Your task to perform on an android device: open sync settings in chrome Image 0: 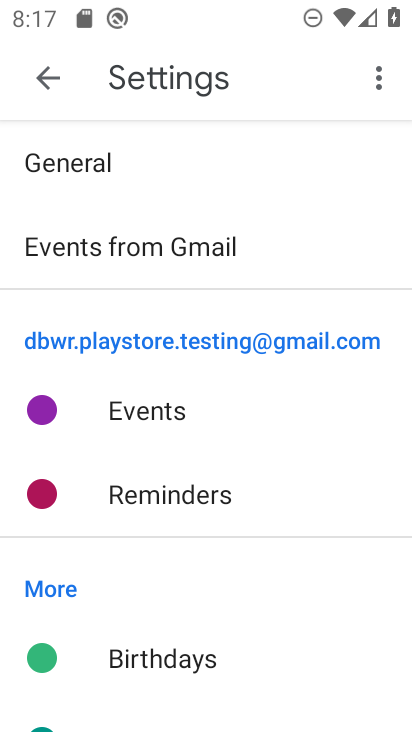
Step 0: press home button
Your task to perform on an android device: open sync settings in chrome Image 1: 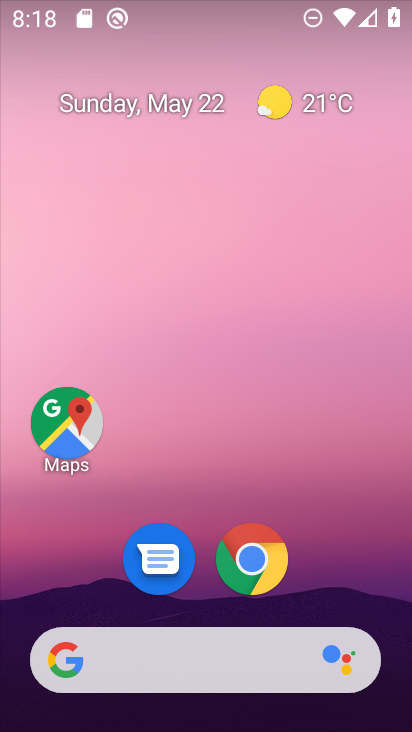
Step 1: drag from (298, 624) to (232, 158)
Your task to perform on an android device: open sync settings in chrome Image 2: 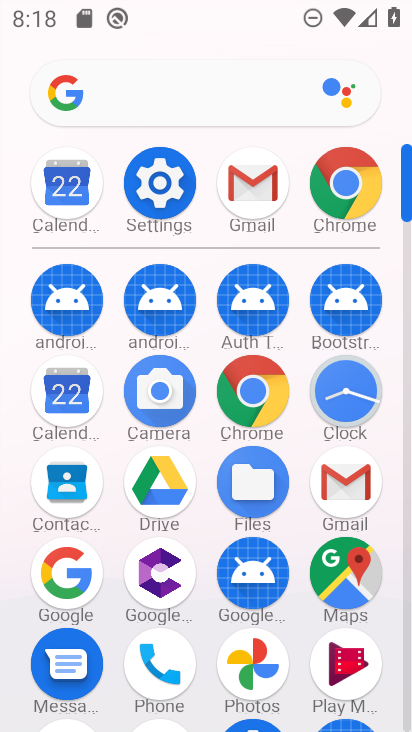
Step 2: click (354, 172)
Your task to perform on an android device: open sync settings in chrome Image 3: 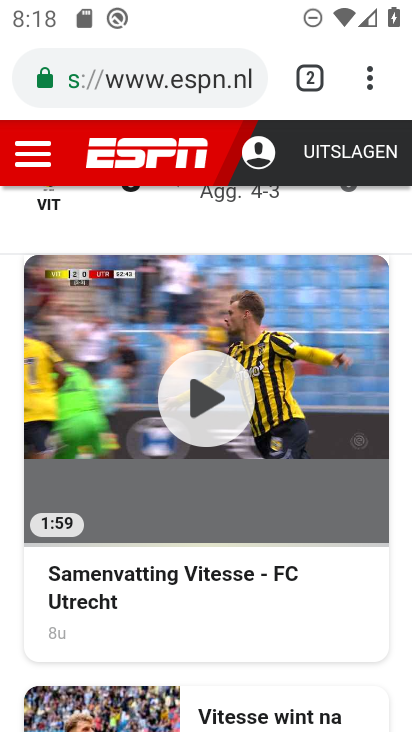
Step 3: click (375, 92)
Your task to perform on an android device: open sync settings in chrome Image 4: 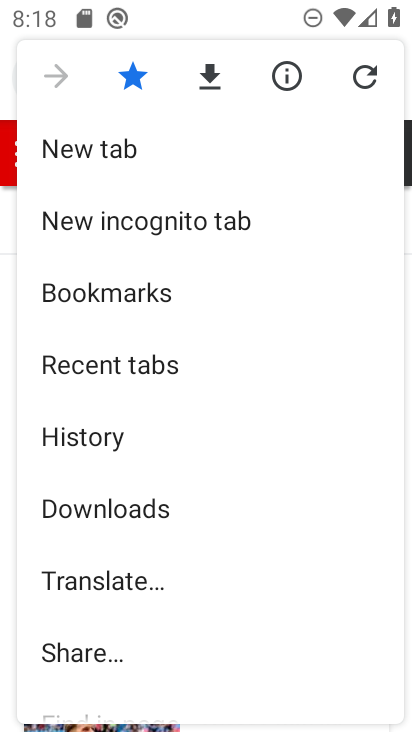
Step 4: drag from (203, 581) to (247, 268)
Your task to perform on an android device: open sync settings in chrome Image 5: 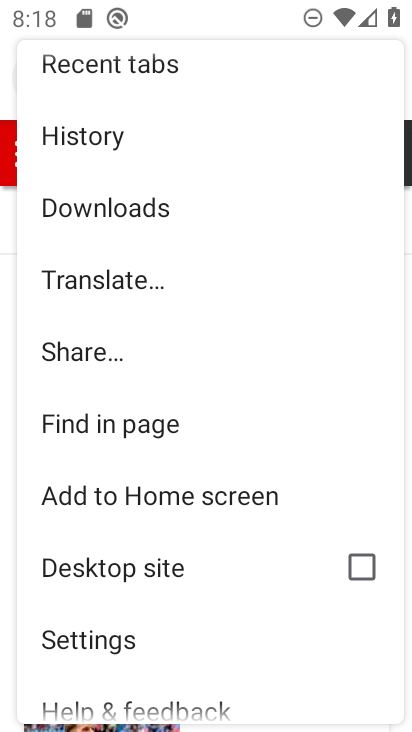
Step 5: click (164, 624)
Your task to perform on an android device: open sync settings in chrome Image 6: 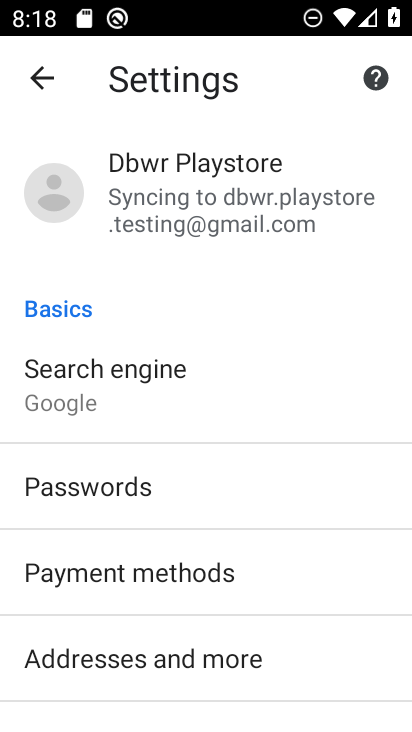
Step 6: drag from (230, 589) to (225, 380)
Your task to perform on an android device: open sync settings in chrome Image 7: 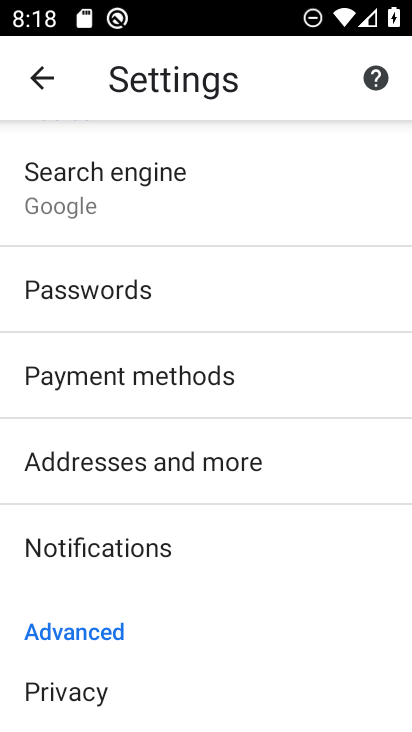
Step 7: drag from (211, 541) to (214, 269)
Your task to perform on an android device: open sync settings in chrome Image 8: 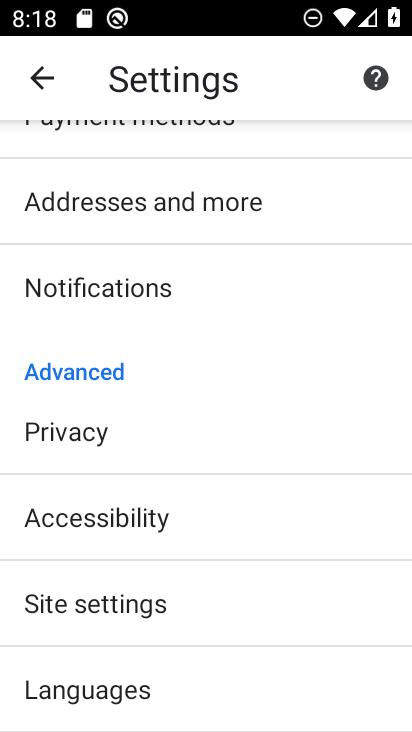
Step 8: click (169, 608)
Your task to perform on an android device: open sync settings in chrome Image 9: 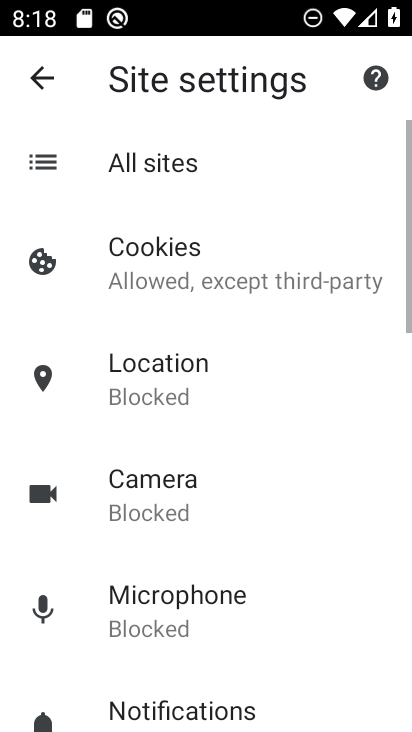
Step 9: drag from (180, 584) to (180, 309)
Your task to perform on an android device: open sync settings in chrome Image 10: 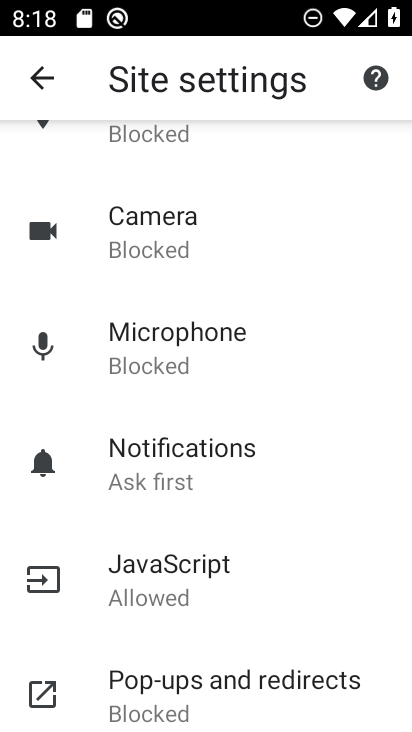
Step 10: drag from (211, 581) to (194, 409)
Your task to perform on an android device: open sync settings in chrome Image 11: 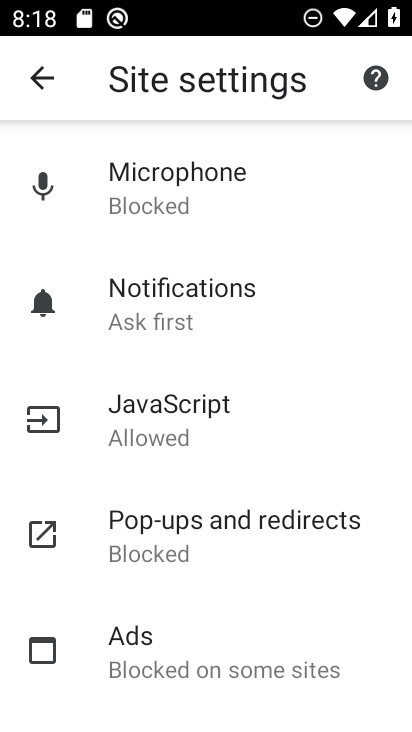
Step 11: drag from (194, 606) to (159, 430)
Your task to perform on an android device: open sync settings in chrome Image 12: 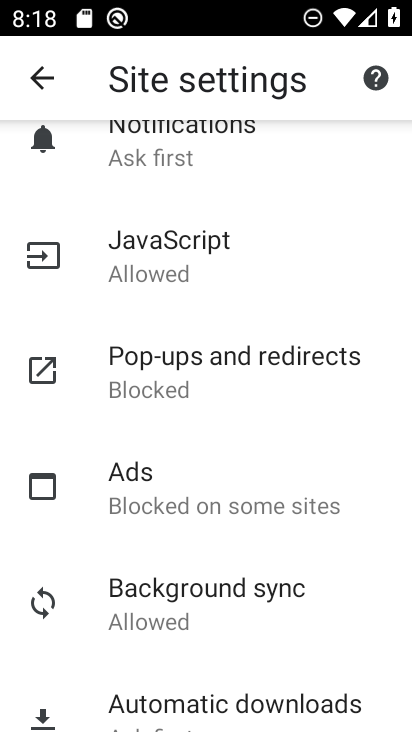
Step 12: click (214, 615)
Your task to perform on an android device: open sync settings in chrome Image 13: 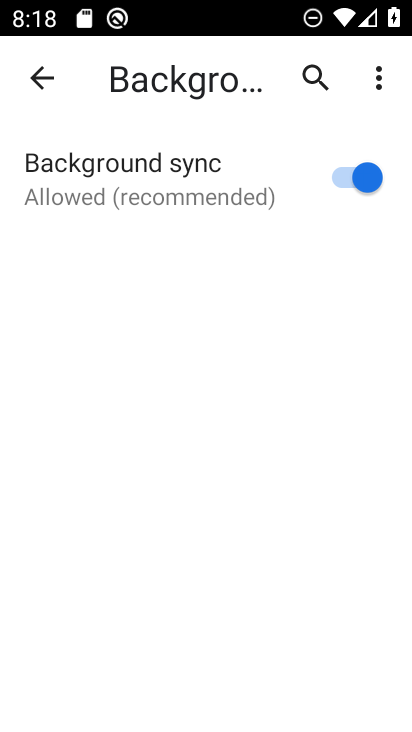
Step 13: task complete